Your task to perform on an android device: open wifi settings Image 0: 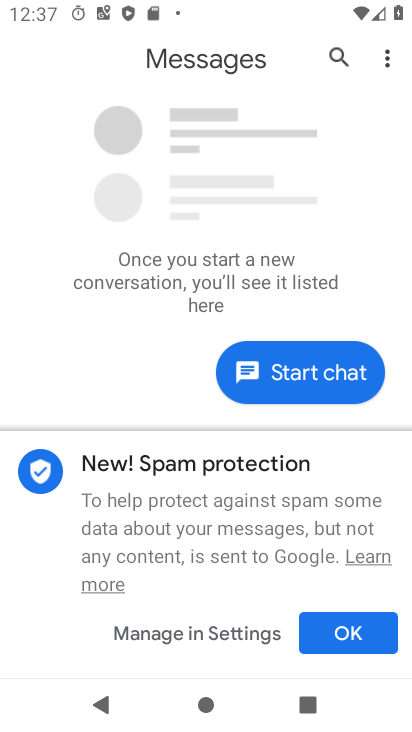
Step 0: press home button
Your task to perform on an android device: open wifi settings Image 1: 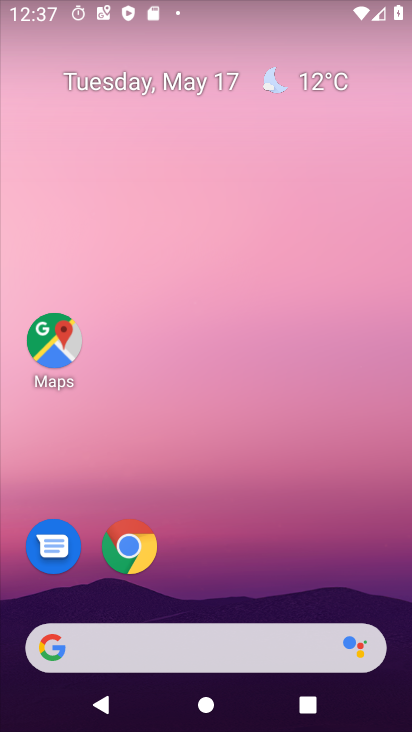
Step 1: drag from (169, 640) to (386, 202)
Your task to perform on an android device: open wifi settings Image 2: 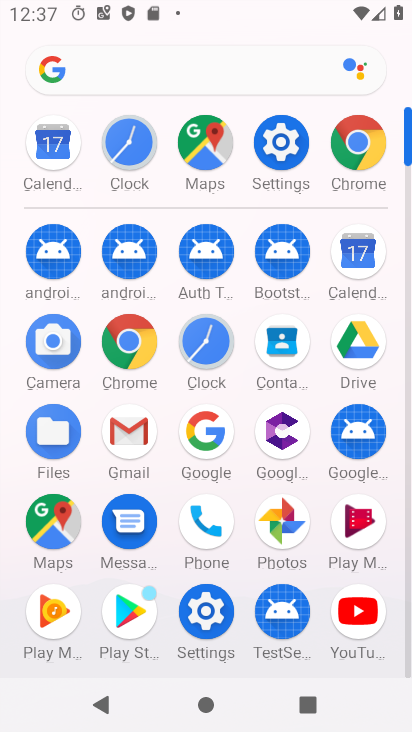
Step 2: click (289, 149)
Your task to perform on an android device: open wifi settings Image 3: 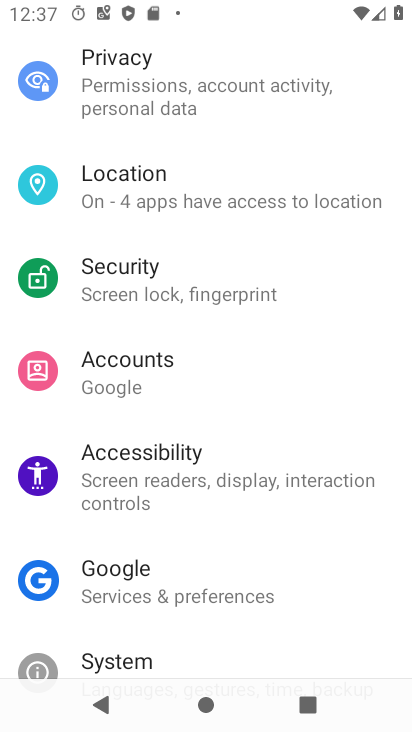
Step 3: drag from (354, 55) to (179, 454)
Your task to perform on an android device: open wifi settings Image 4: 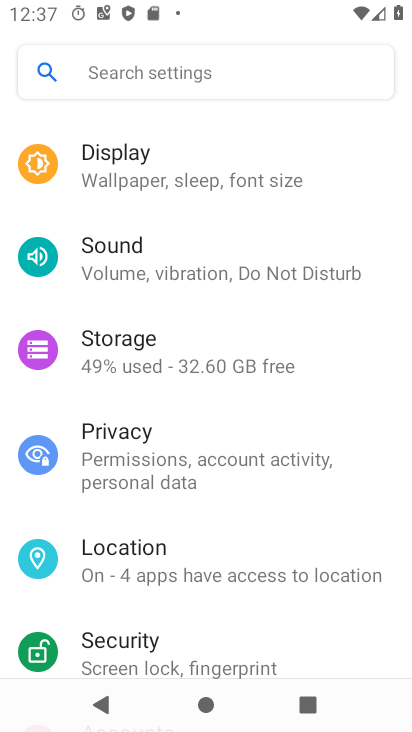
Step 4: drag from (345, 136) to (168, 537)
Your task to perform on an android device: open wifi settings Image 5: 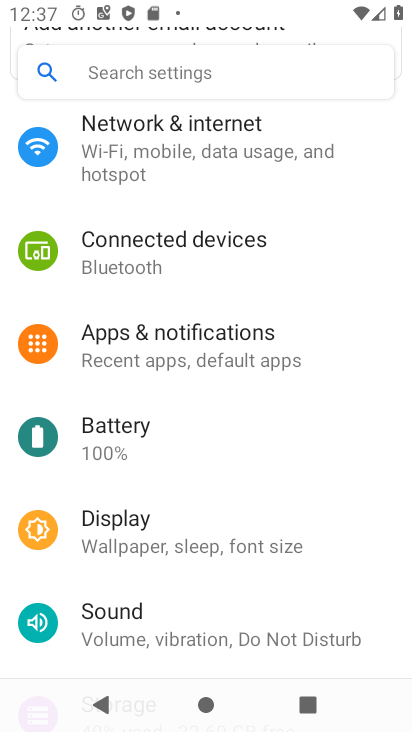
Step 5: click (252, 136)
Your task to perform on an android device: open wifi settings Image 6: 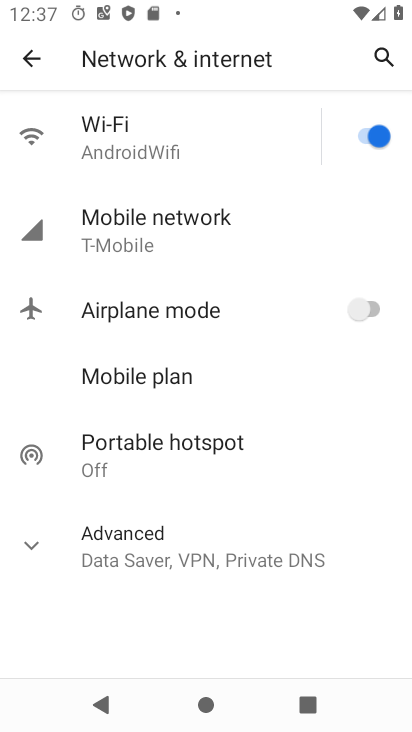
Step 6: click (118, 128)
Your task to perform on an android device: open wifi settings Image 7: 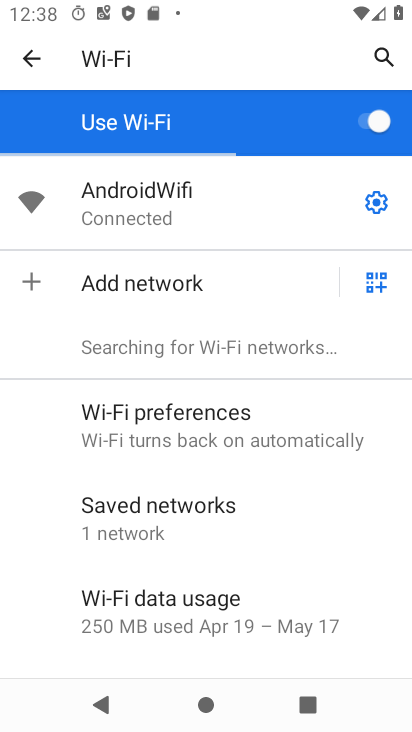
Step 7: task complete